Your task to perform on an android device: turn off airplane mode Image 0: 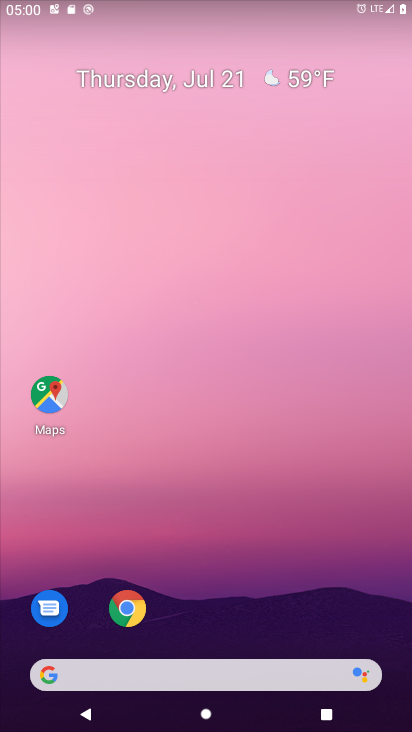
Step 0: drag from (224, 595) to (343, 91)
Your task to perform on an android device: turn off airplane mode Image 1: 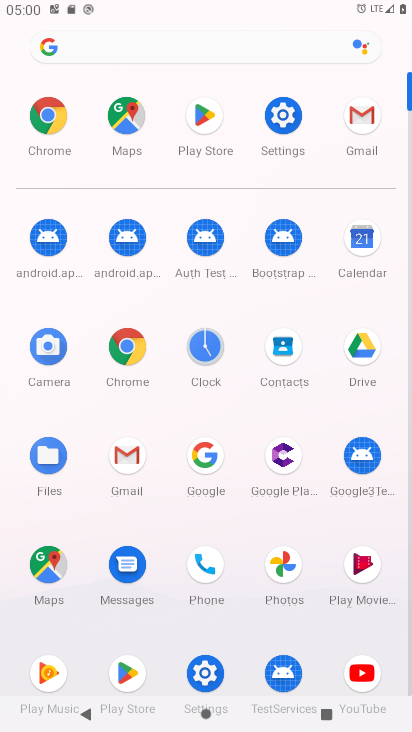
Step 1: click (283, 122)
Your task to perform on an android device: turn off airplane mode Image 2: 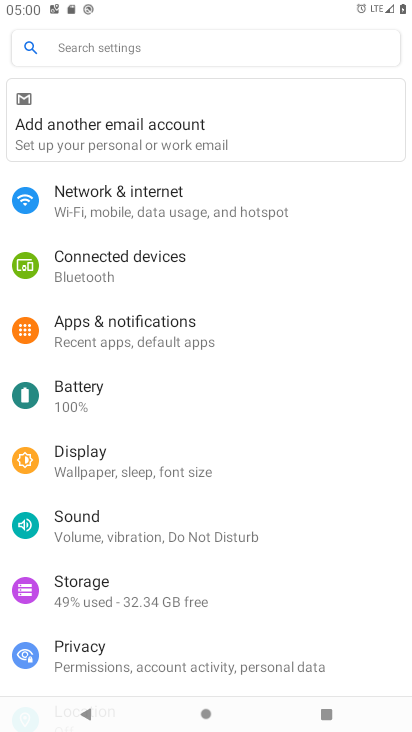
Step 2: click (173, 196)
Your task to perform on an android device: turn off airplane mode Image 3: 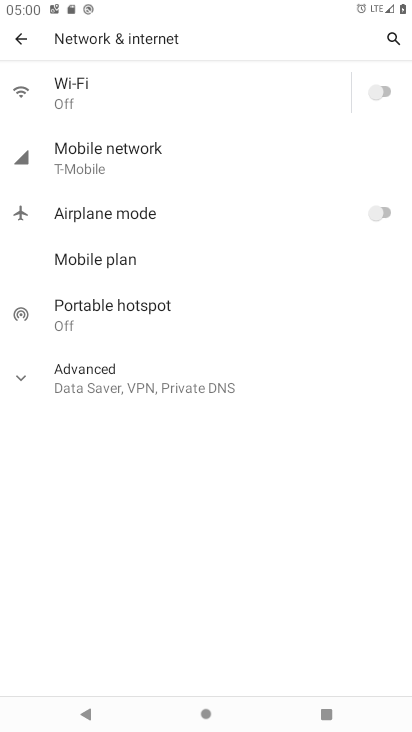
Step 3: task complete